Your task to perform on an android device: manage bookmarks in the chrome app Image 0: 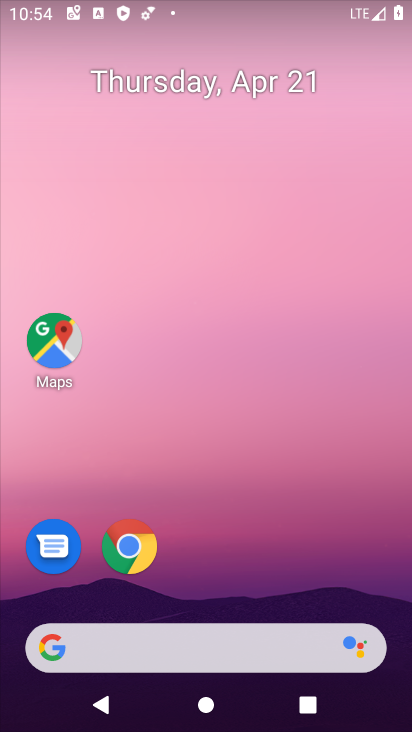
Step 0: click (131, 547)
Your task to perform on an android device: manage bookmarks in the chrome app Image 1: 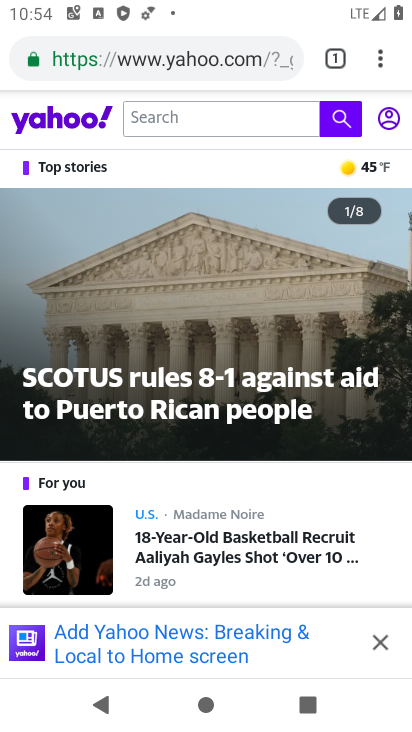
Step 1: click (376, 63)
Your task to perform on an android device: manage bookmarks in the chrome app Image 2: 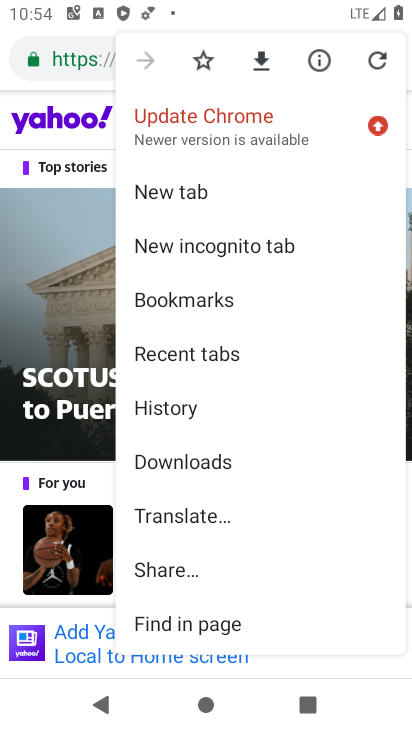
Step 2: click (176, 295)
Your task to perform on an android device: manage bookmarks in the chrome app Image 3: 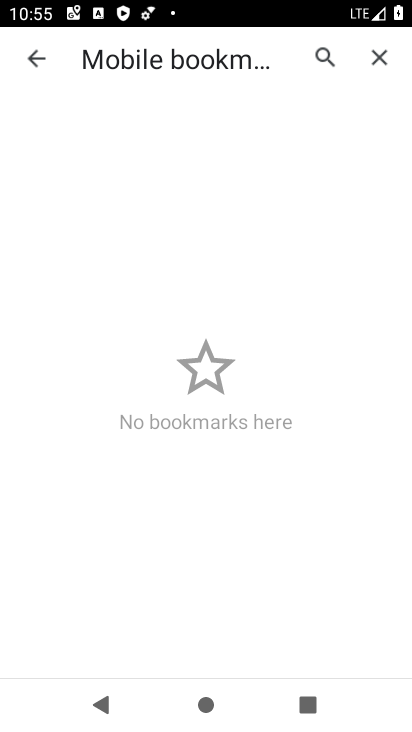
Step 3: task complete